Your task to perform on an android device: turn on airplane mode Image 0: 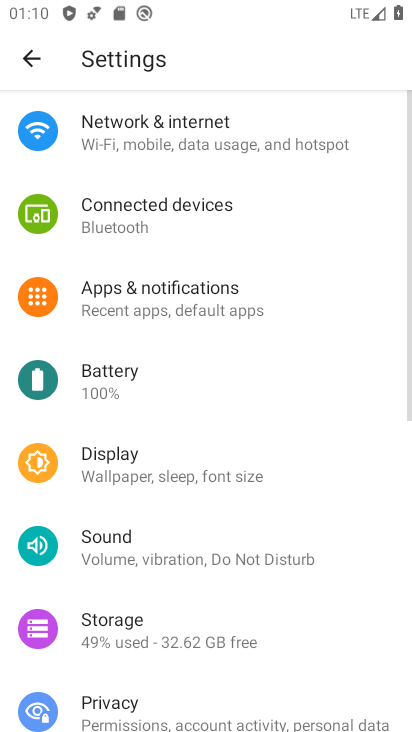
Step 0: click (166, 114)
Your task to perform on an android device: turn on airplane mode Image 1: 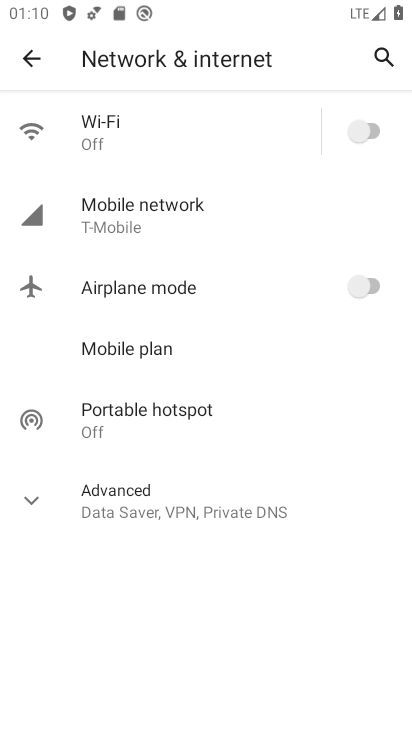
Step 1: click (170, 286)
Your task to perform on an android device: turn on airplane mode Image 2: 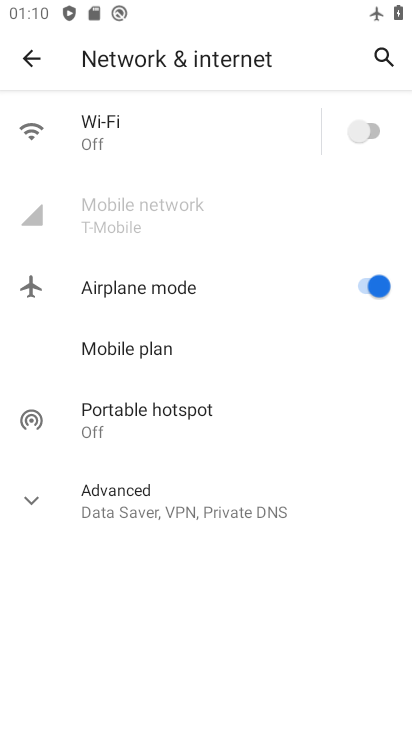
Step 2: task complete